Your task to perform on an android device: check out phone information Image 0: 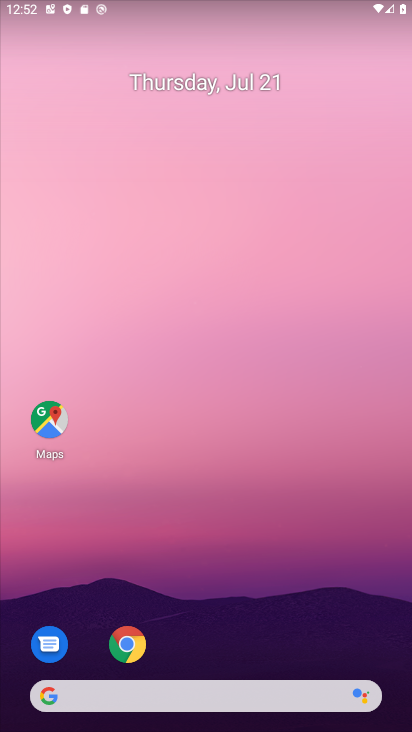
Step 0: press home button
Your task to perform on an android device: check out phone information Image 1: 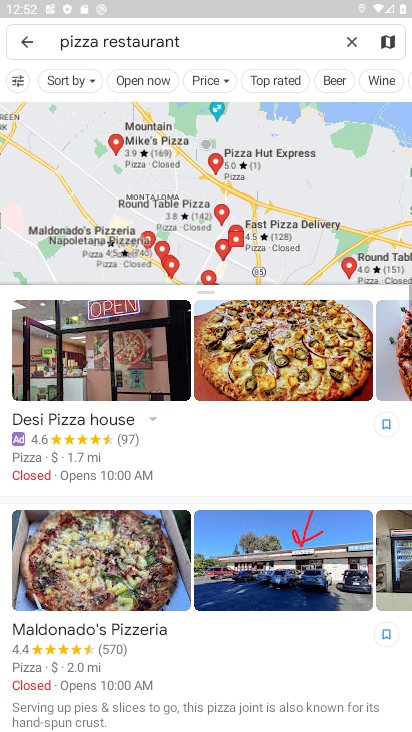
Step 1: drag from (203, 649) to (184, 98)
Your task to perform on an android device: check out phone information Image 2: 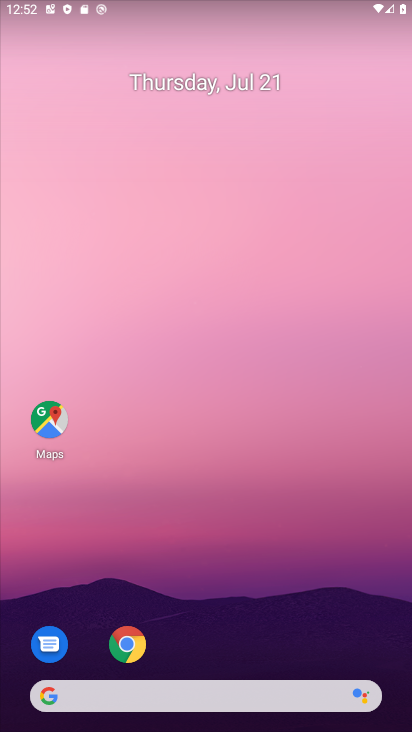
Step 2: drag from (284, 626) to (260, 16)
Your task to perform on an android device: check out phone information Image 3: 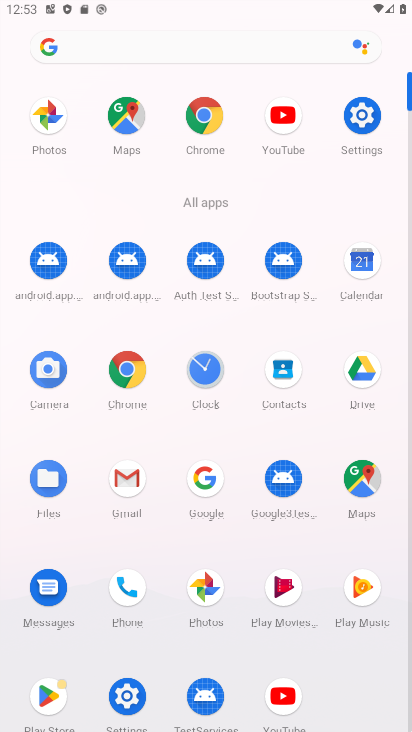
Step 3: click (199, 591)
Your task to perform on an android device: check out phone information Image 4: 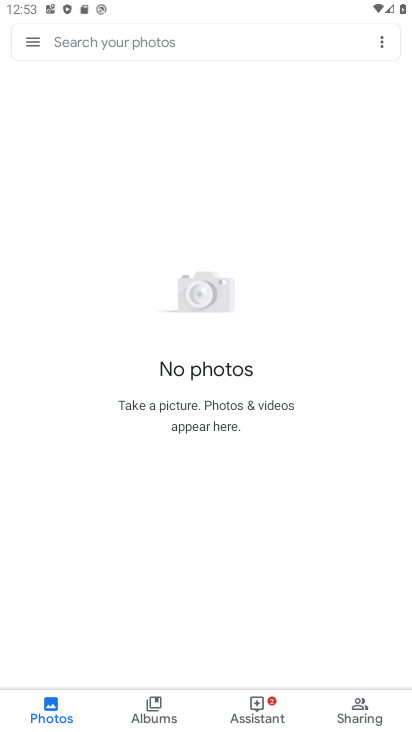
Step 4: press home button
Your task to perform on an android device: check out phone information Image 5: 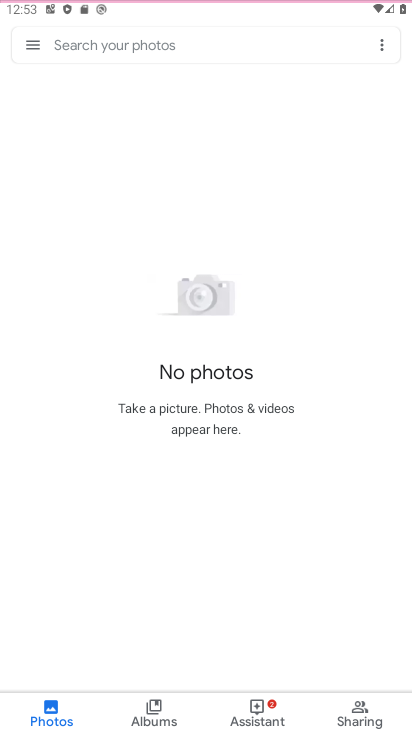
Step 5: drag from (323, 683) to (197, 17)
Your task to perform on an android device: check out phone information Image 6: 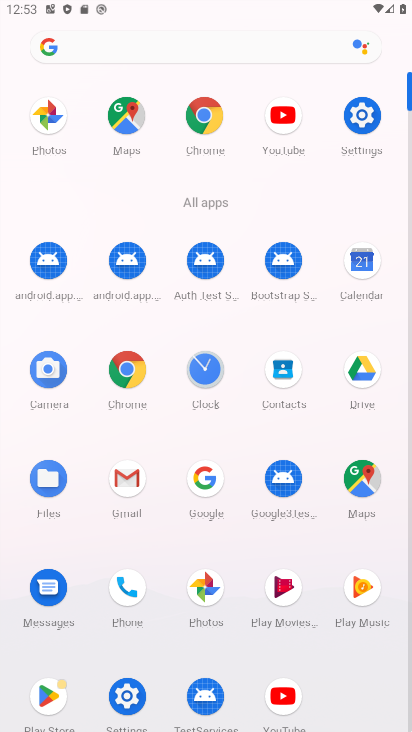
Step 6: click (136, 623)
Your task to perform on an android device: check out phone information Image 7: 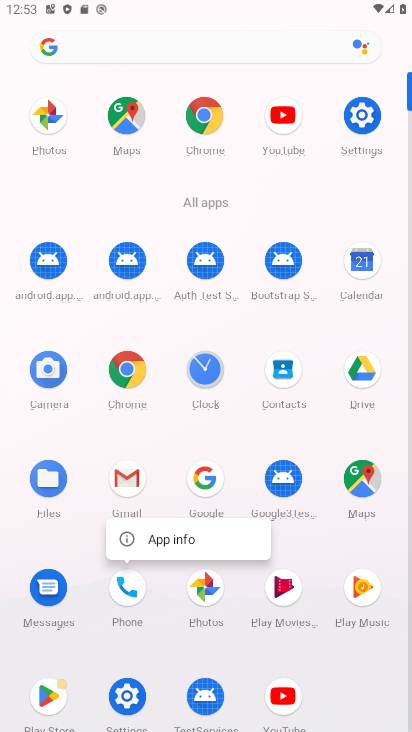
Step 7: click (156, 546)
Your task to perform on an android device: check out phone information Image 8: 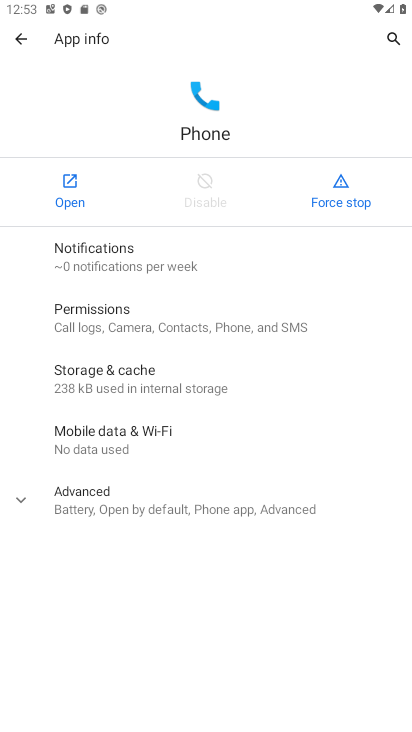
Step 8: task complete